Your task to perform on an android device: Open the web browser Image 0: 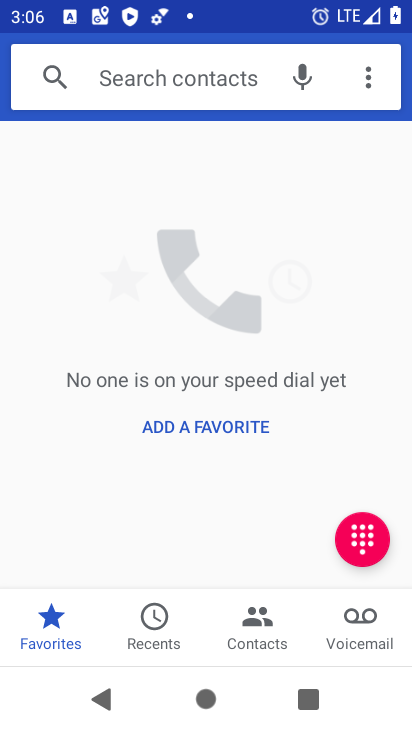
Step 0: press home button
Your task to perform on an android device: Open the web browser Image 1: 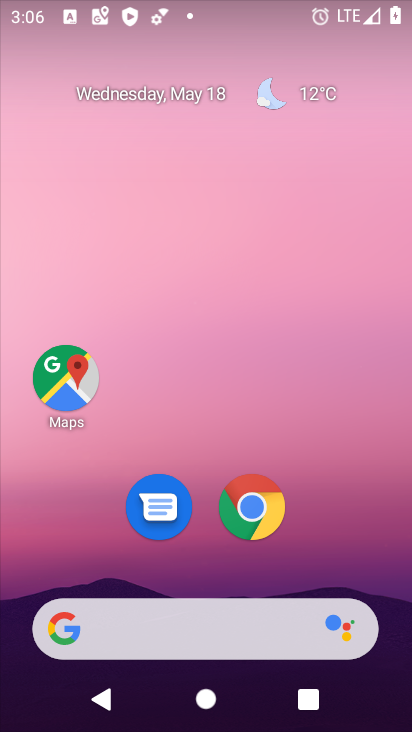
Step 1: click (248, 512)
Your task to perform on an android device: Open the web browser Image 2: 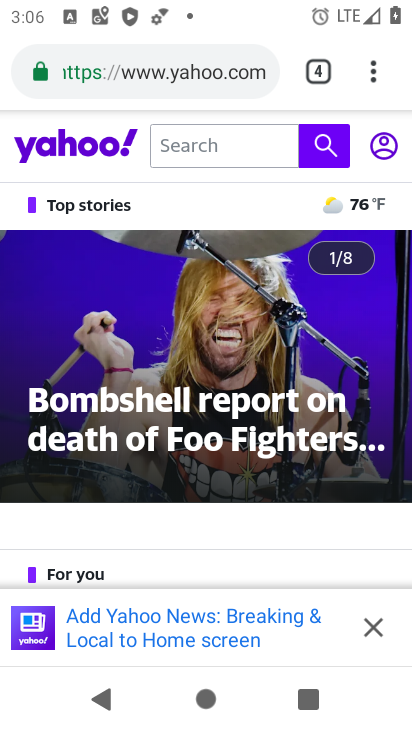
Step 2: task complete